Your task to perform on an android device: turn on airplane mode Image 0: 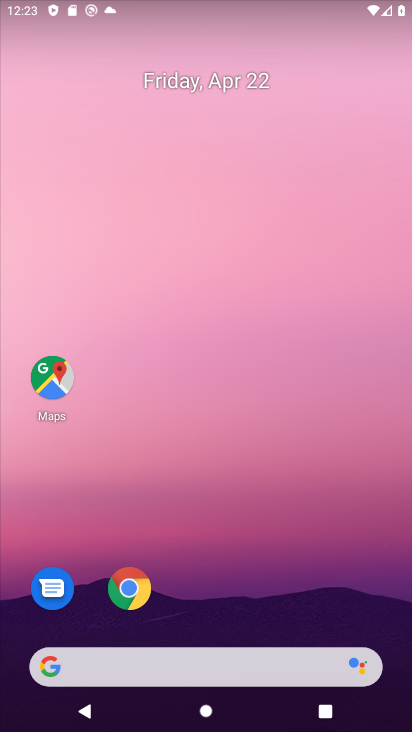
Step 0: drag from (246, 678) to (316, 96)
Your task to perform on an android device: turn on airplane mode Image 1: 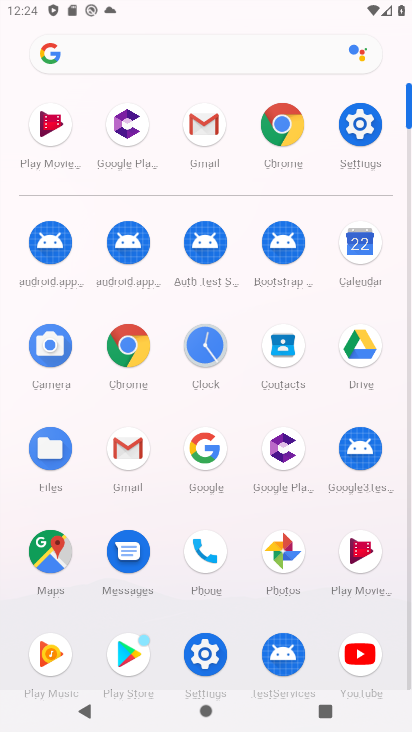
Step 1: click (367, 125)
Your task to perform on an android device: turn on airplane mode Image 2: 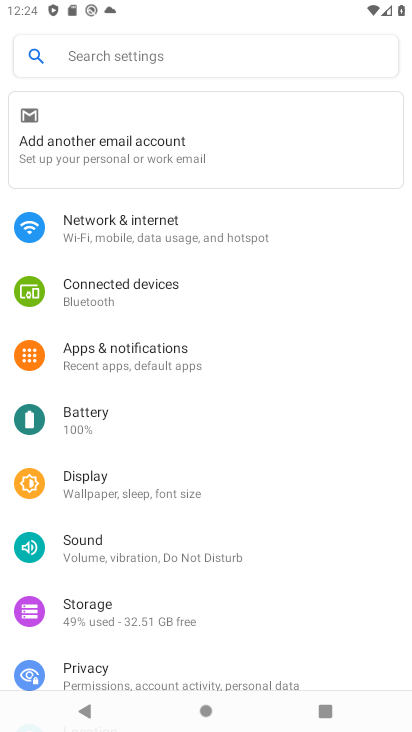
Step 2: click (182, 222)
Your task to perform on an android device: turn on airplane mode Image 3: 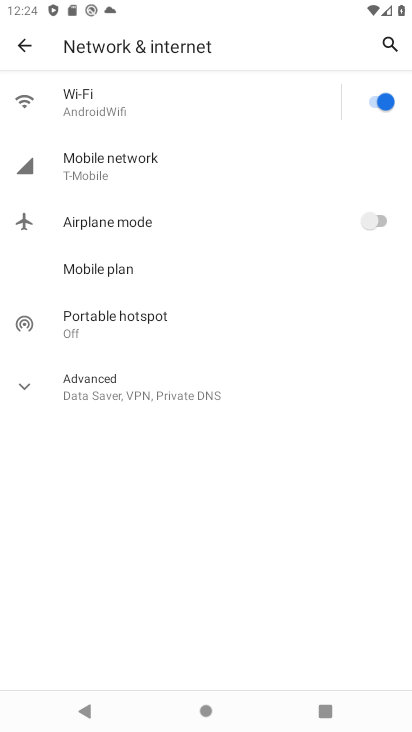
Step 3: click (191, 215)
Your task to perform on an android device: turn on airplane mode Image 4: 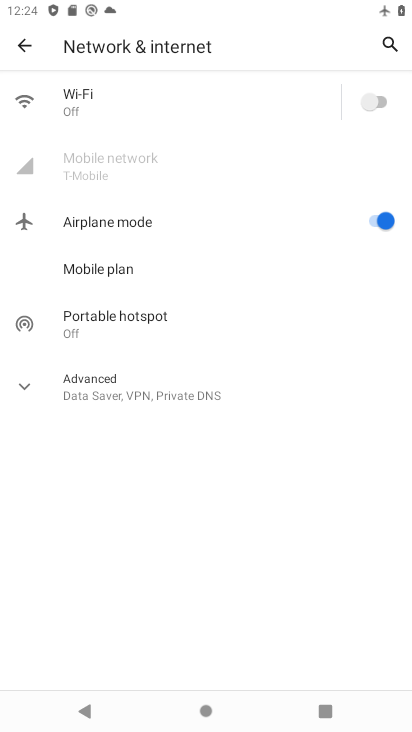
Step 4: task complete